Your task to perform on an android device: Open Chrome and go to settings Image 0: 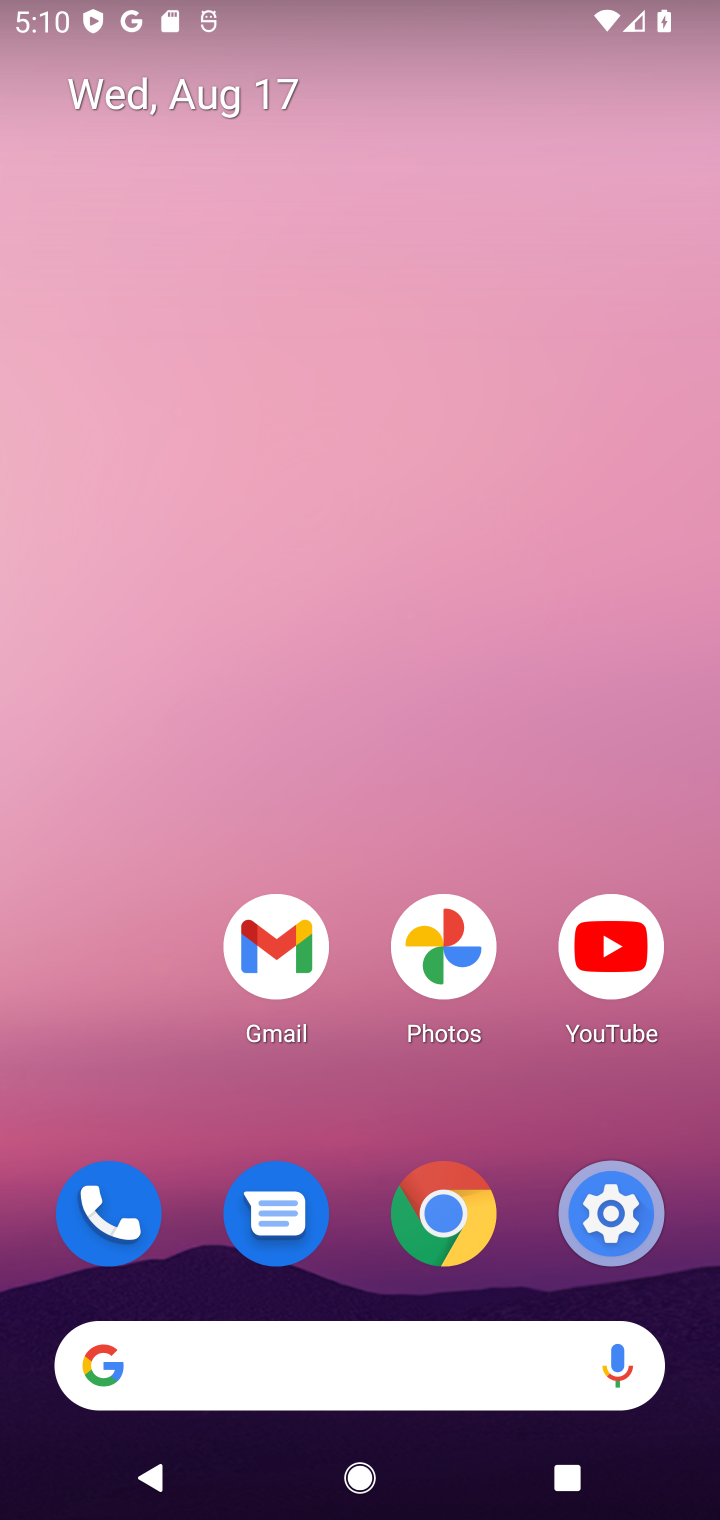
Step 0: click (425, 1225)
Your task to perform on an android device: Open Chrome and go to settings Image 1: 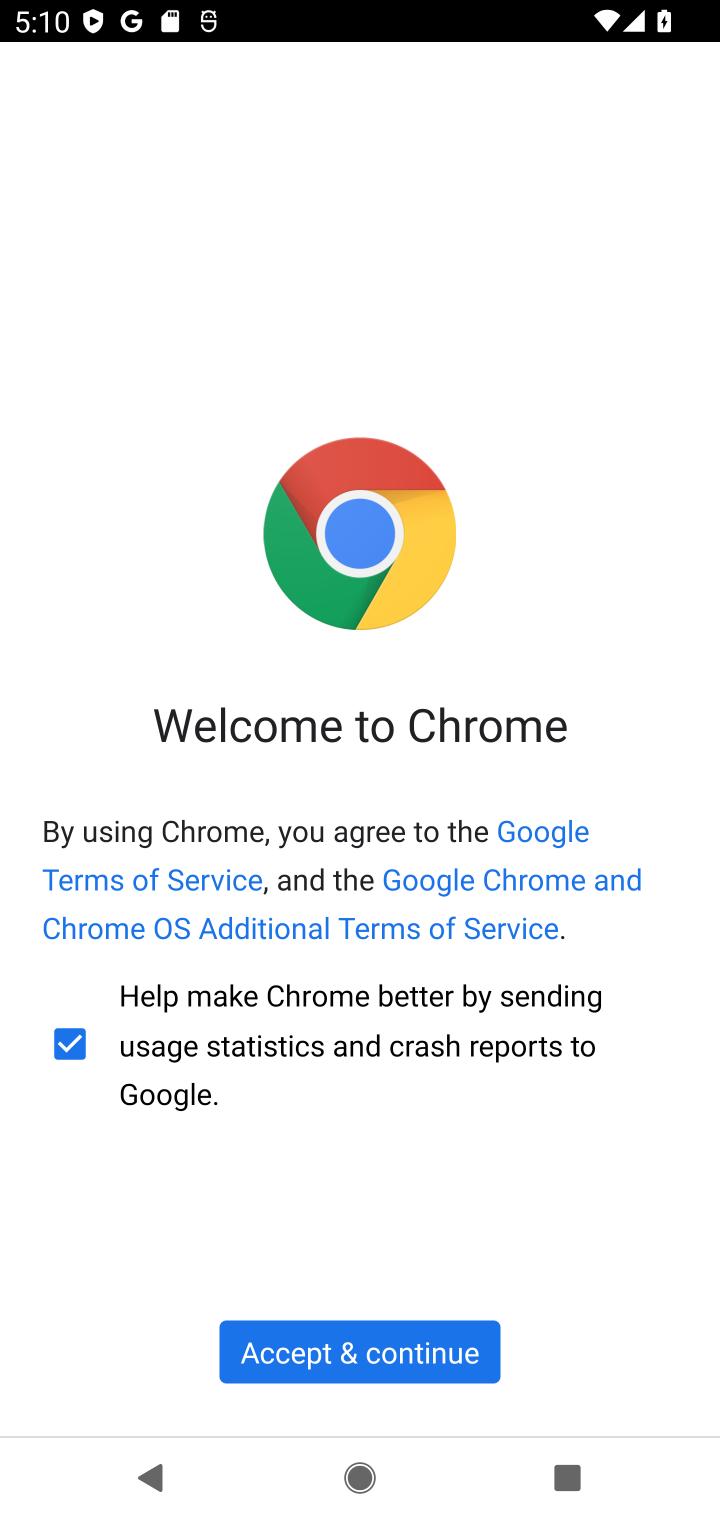
Step 1: click (403, 1371)
Your task to perform on an android device: Open Chrome and go to settings Image 2: 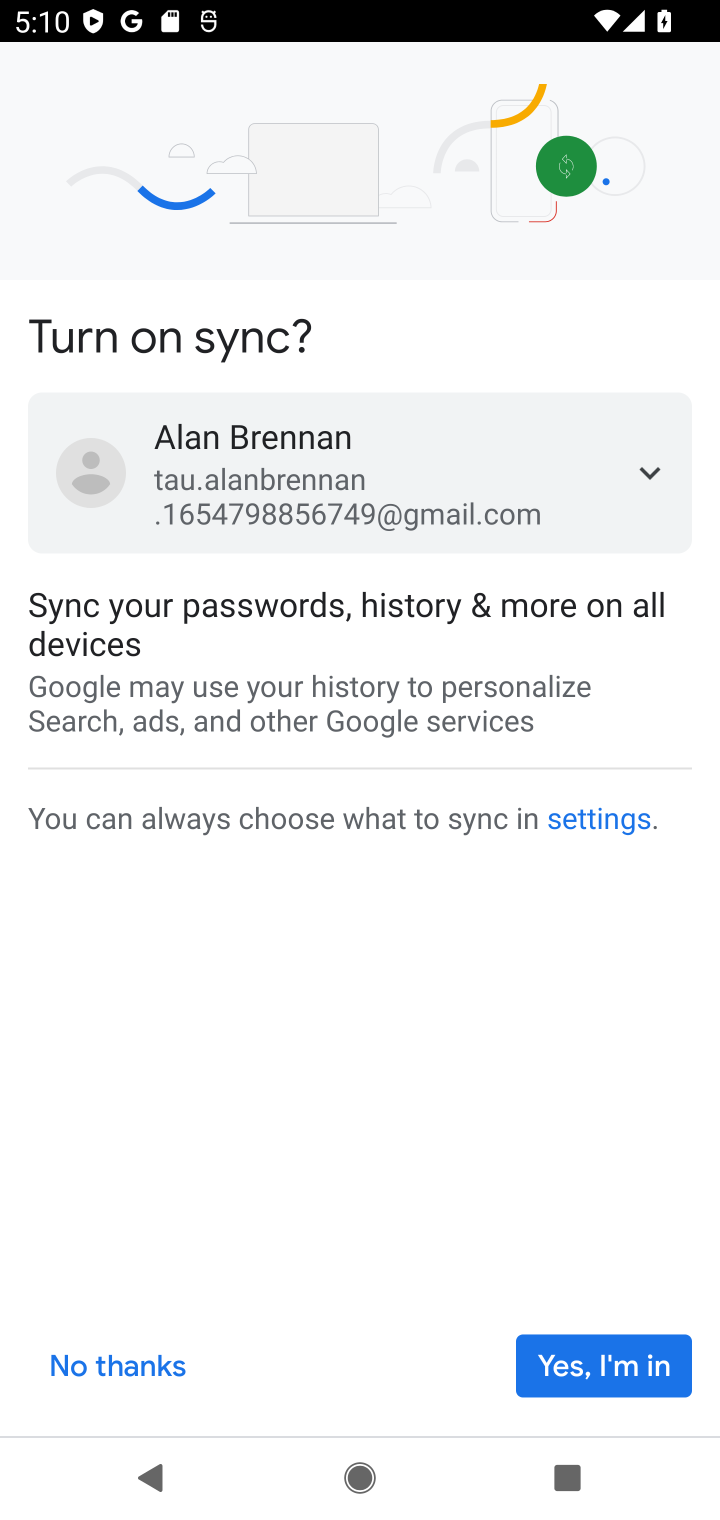
Step 2: click (588, 1374)
Your task to perform on an android device: Open Chrome and go to settings Image 3: 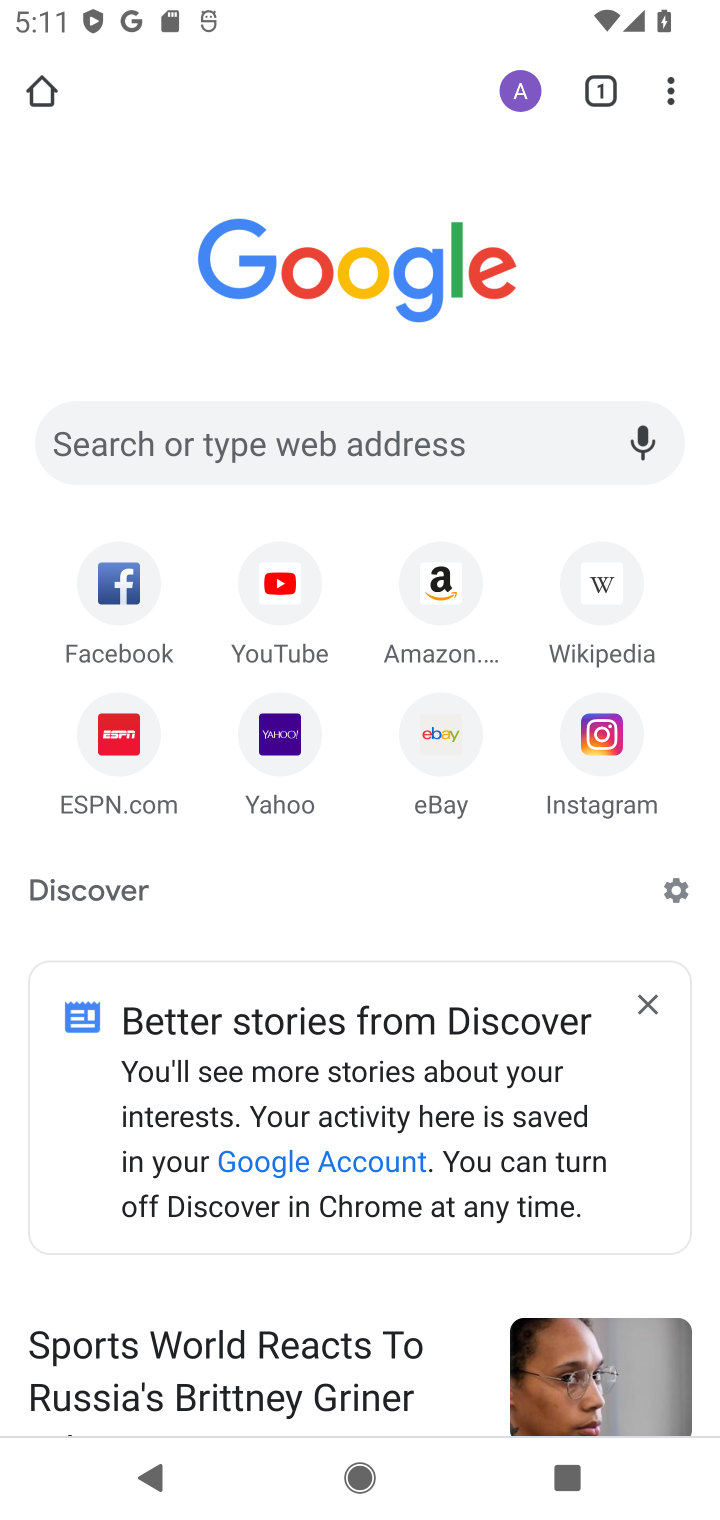
Step 3: click (664, 110)
Your task to perform on an android device: Open Chrome and go to settings Image 4: 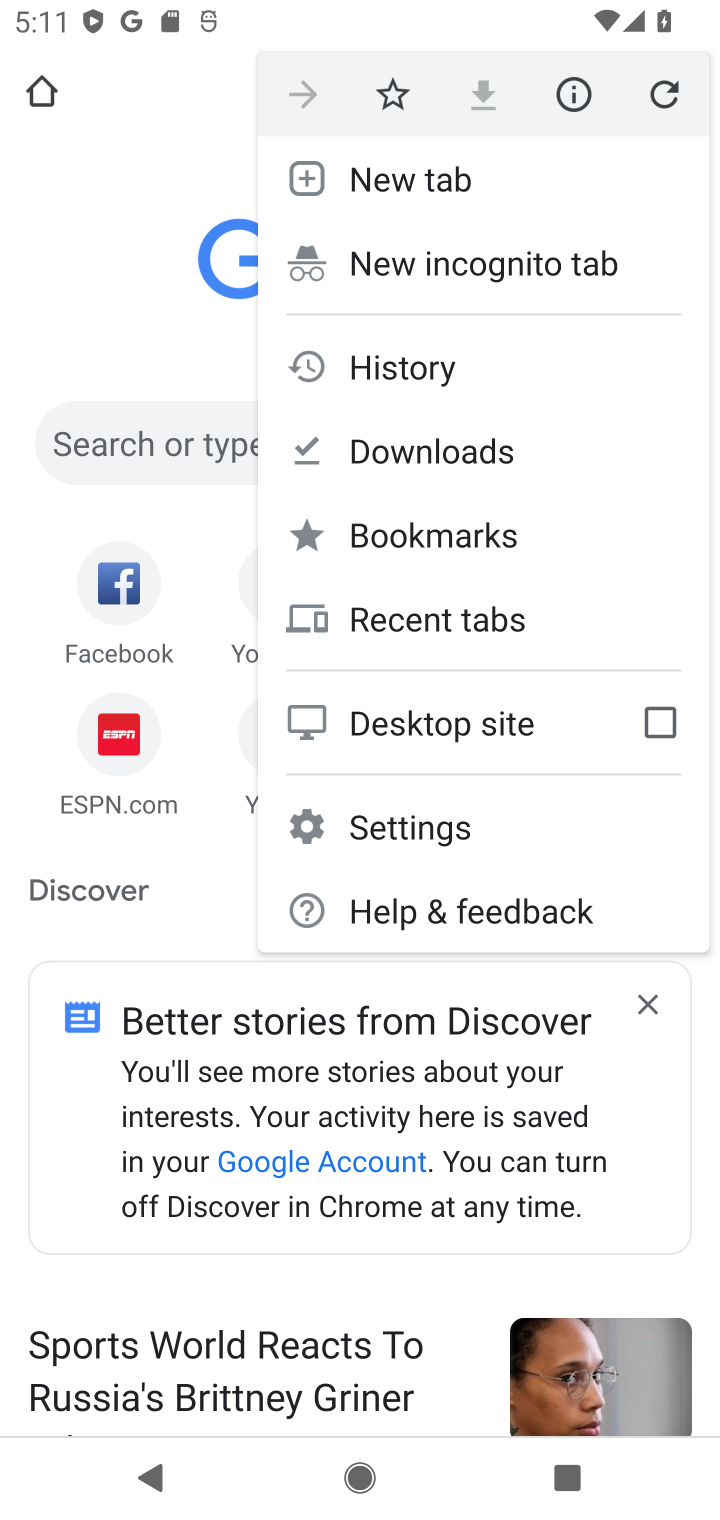
Step 4: click (464, 825)
Your task to perform on an android device: Open Chrome and go to settings Image 5: 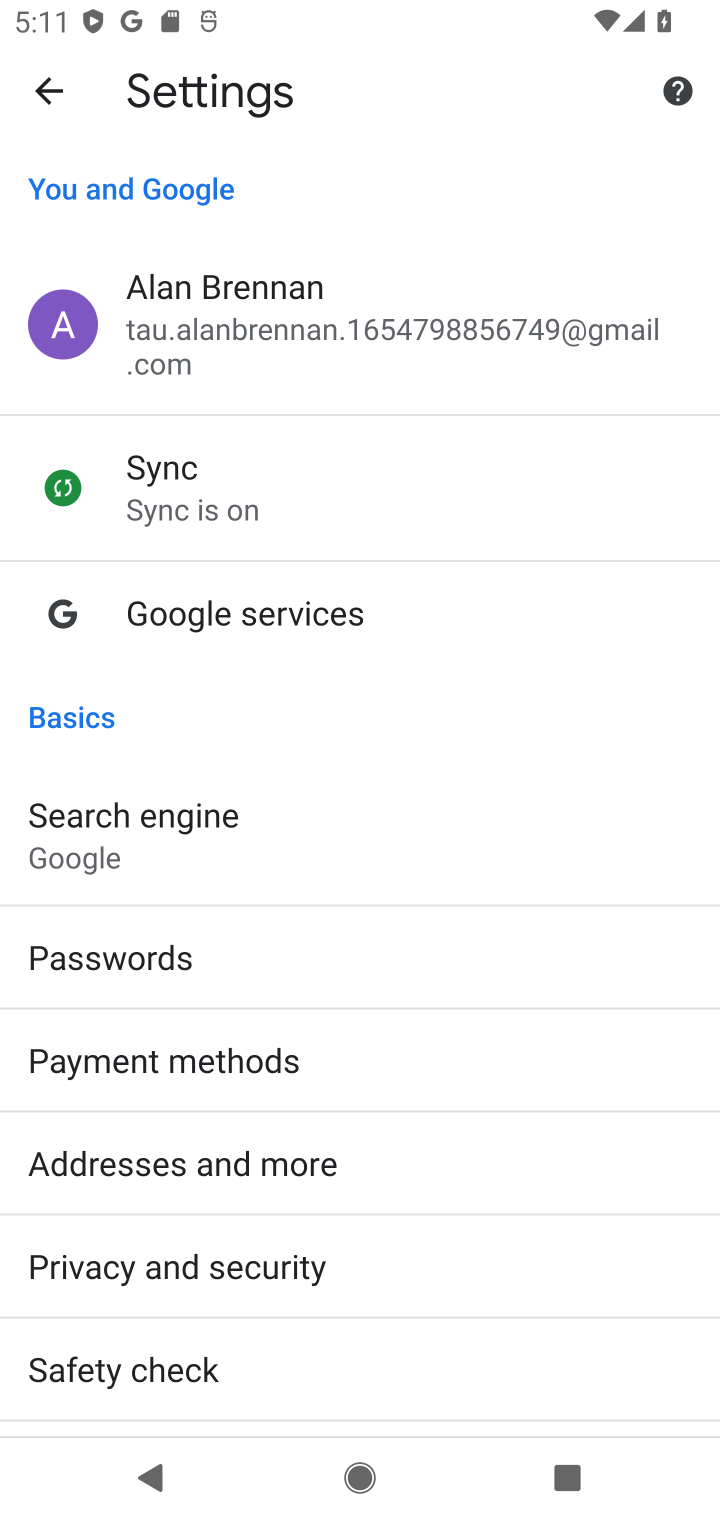
Step 5: task complete